Your task to perform on an android device: Do I have any events today? Image 0: 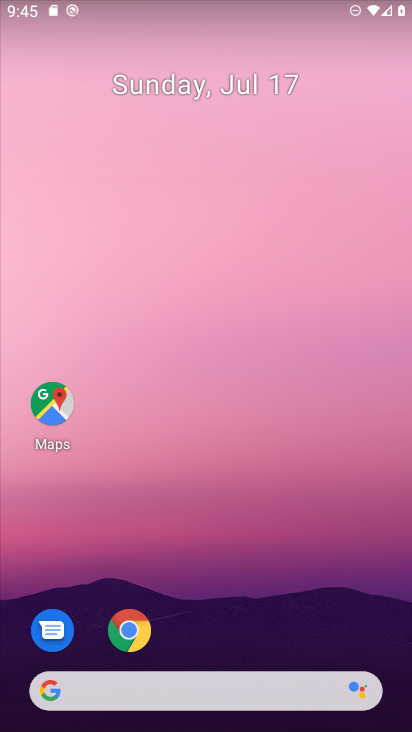
Step 0: drag from (302, 635) to (271, 149)
Your task to perform on an android device: Do I have any events today? Image 1: 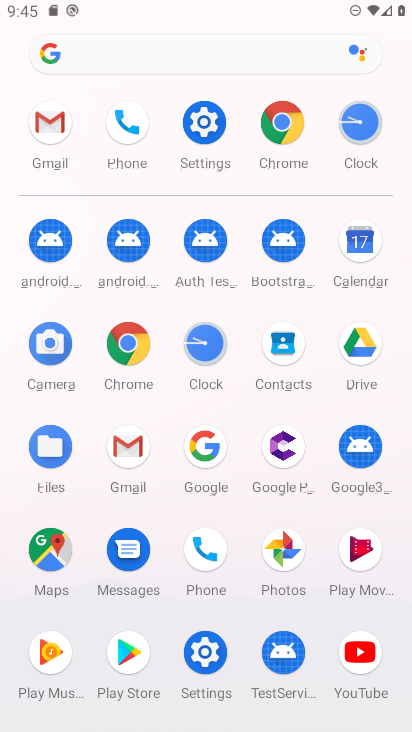
Step 1: click (348, 238)
Your task to perform on an android device: Do I have any events today? Image 2: 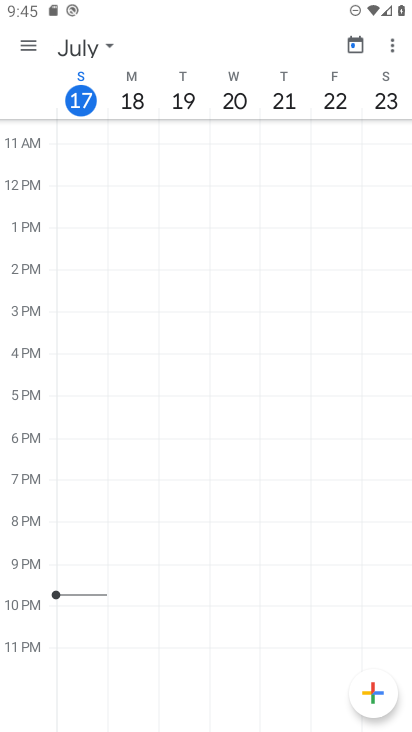
Step 2: click (127, 100)
Your task to perform on an android device: Do I have any events today? Image 3: 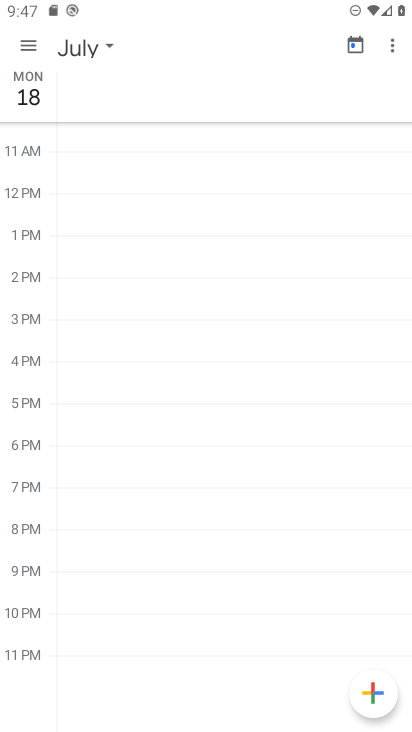
Step 3: task complete